Your task to perform on an android device: toggle wifi Image 0: 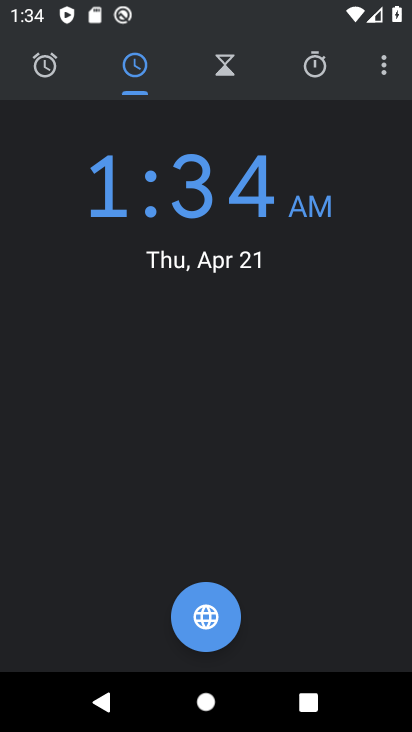
Step 0: press home button
Your task to perform on an android device: toggle wifi Image 1: 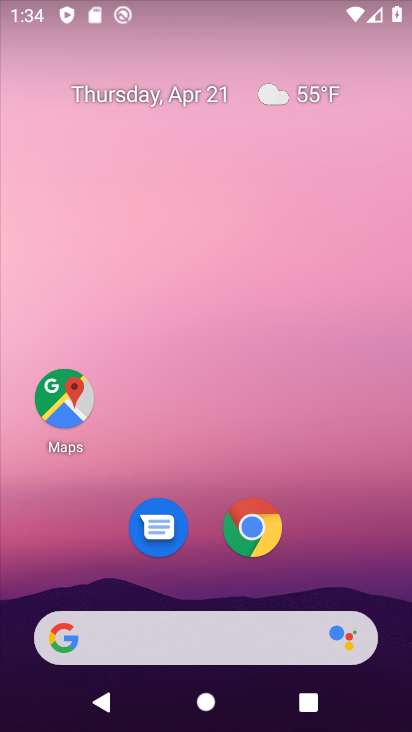
Step 1: drag from (328, 556) to (318, 73)
Your task to perform on an android device: toggle wifi Image 2: 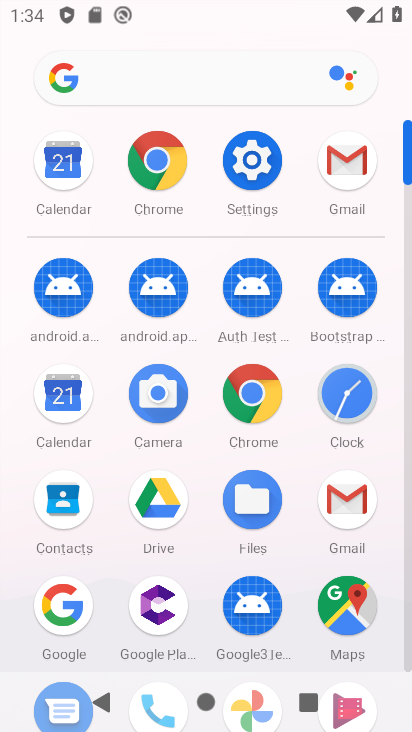
Step 2: click (256, 171)
Your task to perform on an android device: toggle wifi Image 3: 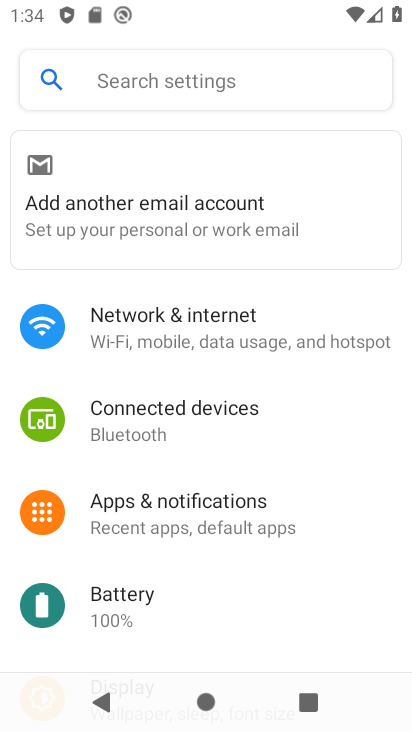
Step 3: drag from (342, 574) to (342, 415)
Your task to perform on an android device: toggle wifi Image 4: 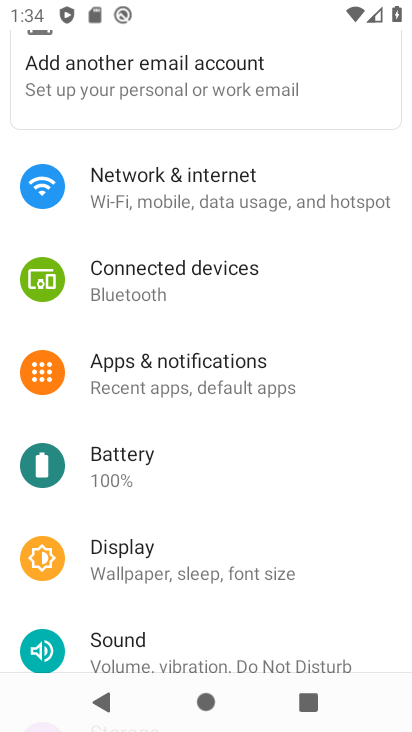
Step 4: drag from (352, 607) to (356, 427)
Your task to perform on an android device: toggle wifi Image 5: 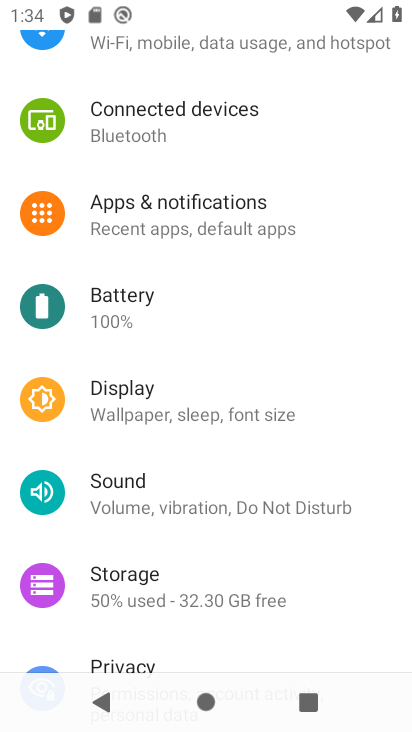
Step 5: drag from (366, 605) to (363, 390)
Your task to perform on an android device: toggle wifi Image 6: 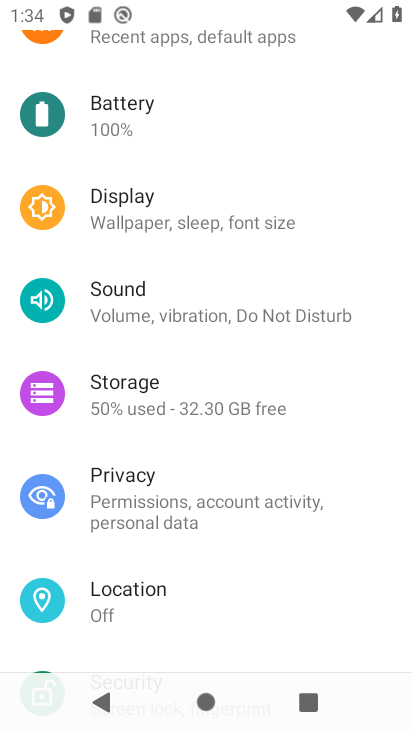
Step 6: drag from (355, 571) to (365, 367)
Your task to perform on an android device: toggle wifi Image 7: 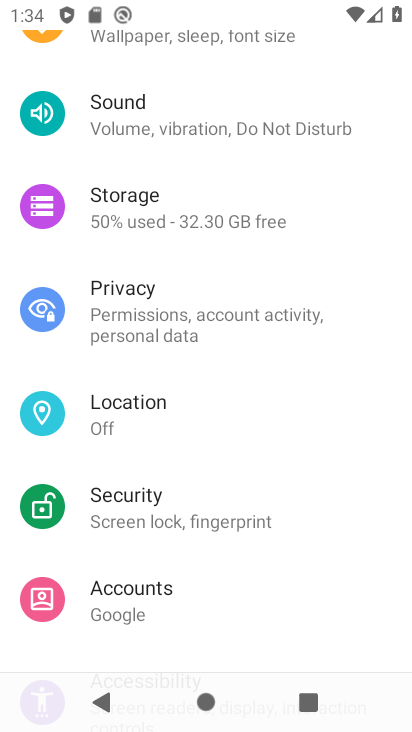
Step 7: drag from (355, 509) to (367, 200)
Your task to perform on an android device: toggle wifi Image 8: 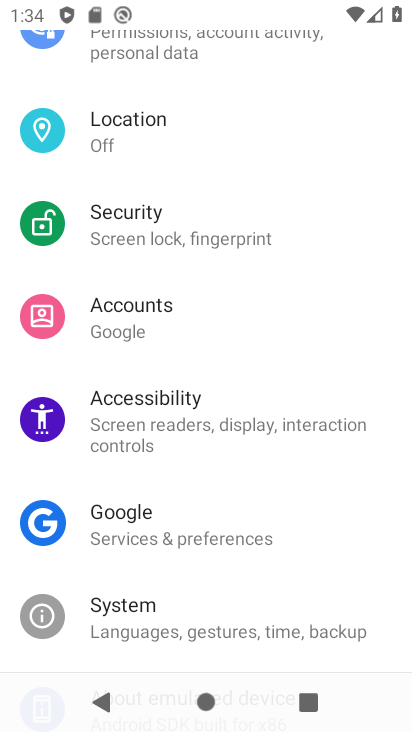
Step 8: drag from (333, 545) to (347, 231)
Your task to perform on an android device: toggle wifi Image 9: 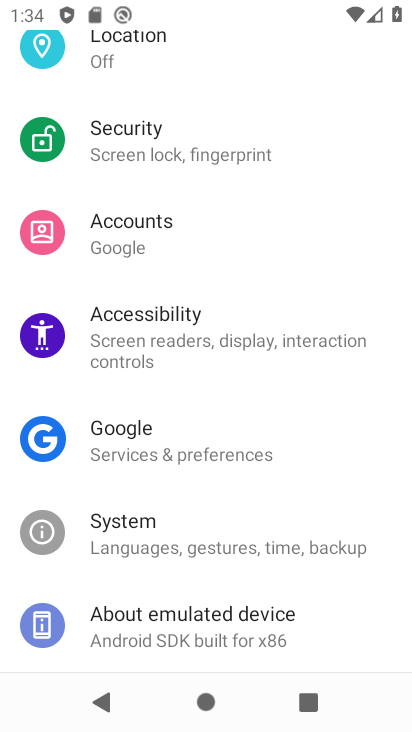
Step 9: drag from (349, 190) to (336, 495)
Your task to perform on an android device: toggle wifi Image 10: 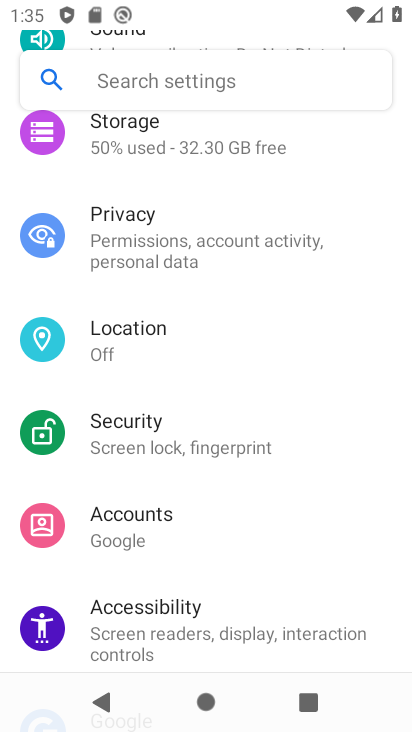
Step 10: drag from (358, 218) to (356, 444)
Your task to perform on an android device: toggle wifi Image 11: 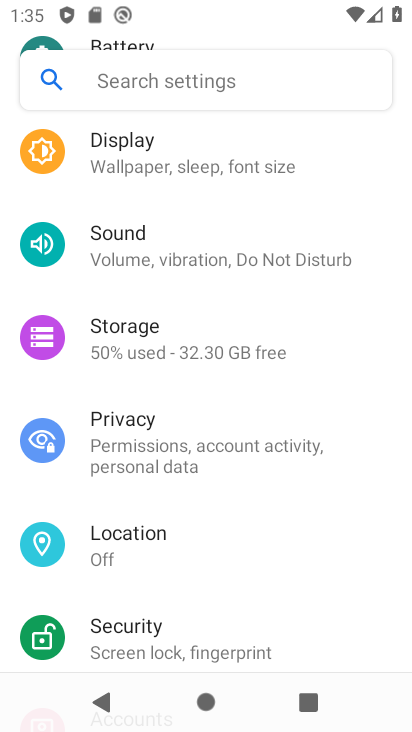
Step 11: drag from (370, 207) to (363, 424)
Your task to perform on an android device: toggle wifi Image 12: 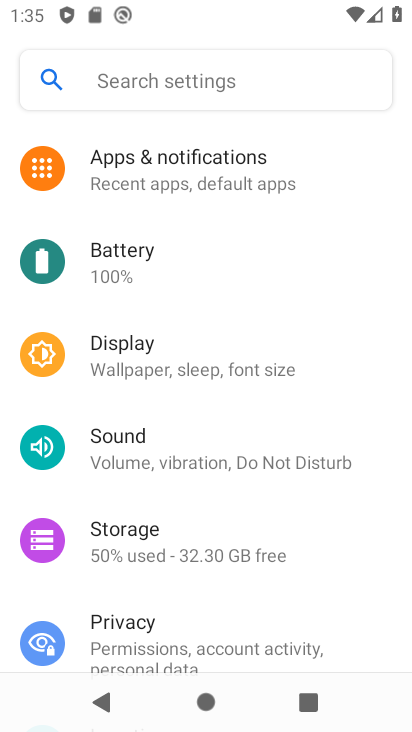
Step 12: drag from (356, 192) to (354, 389)
Your task to perform on an android device: toggle wifi Image 13: 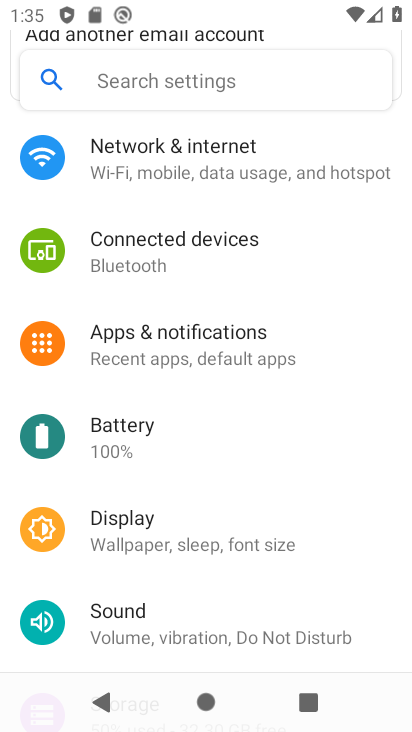
Step 13: drag from (345, 228) to (338, 409)
Your task to perform on an android device: toggle wifi Image 14: 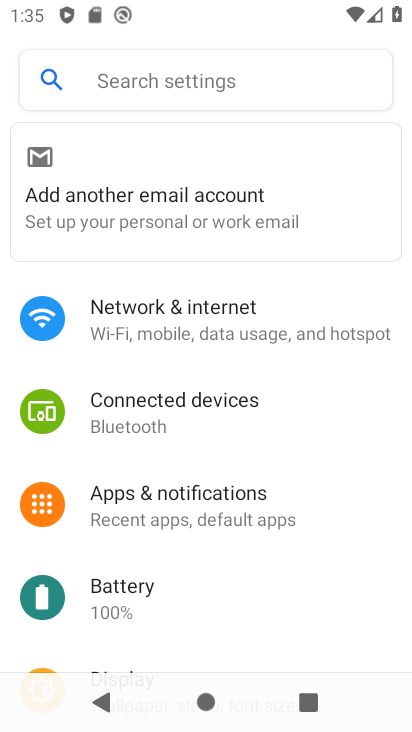
Step 14: click (195, 320)
Your task to perform on an android device: toggle wifi Image 15: 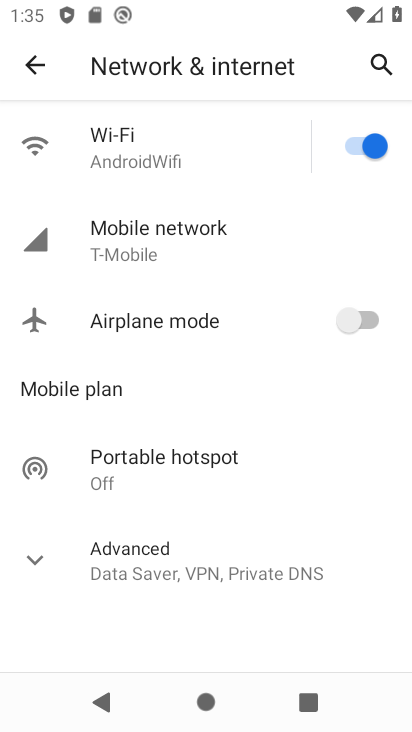
Step 15: click (370, 143)
Your task to perform on an android device: toggle wifi Image 16: 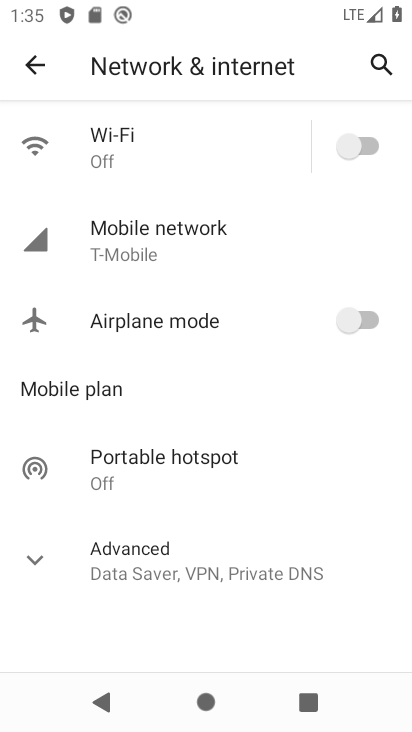
Step 16: task complete